Your task to perform on an android device: toggle improve location accuracy Image 0: 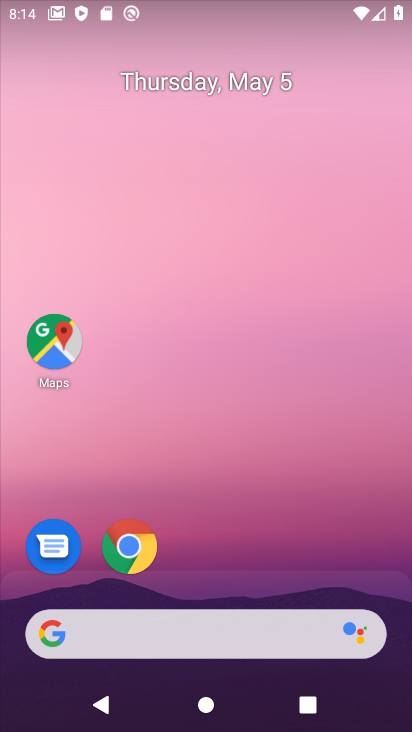
Step 0: drag from (259, 704) to (232, 195)
Your task to perform on an android device: toggle improve location accuracy Image 1: 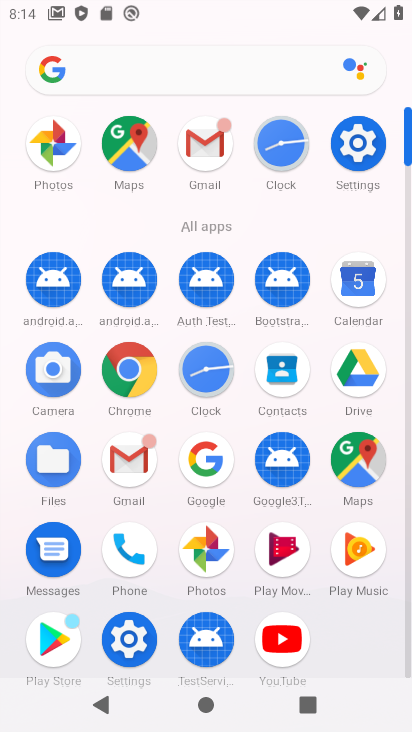
Step 1: click (330, 599)
Your task to perform on an android device: toggle improve location accuracy Image 2: 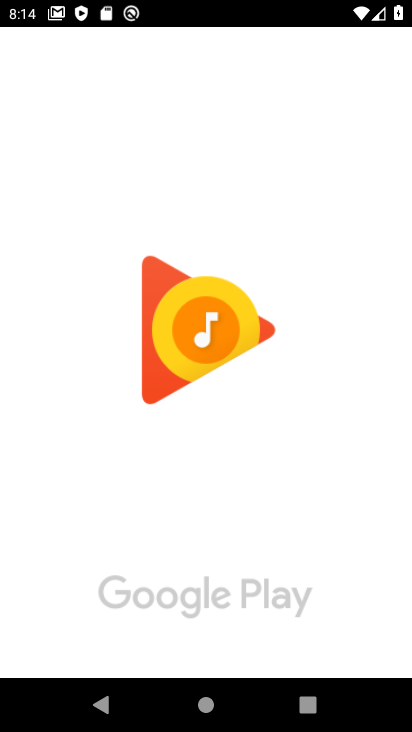
Step 2: press home button
Your task to perform on an android device: toggle improve location accuracy Image 3: 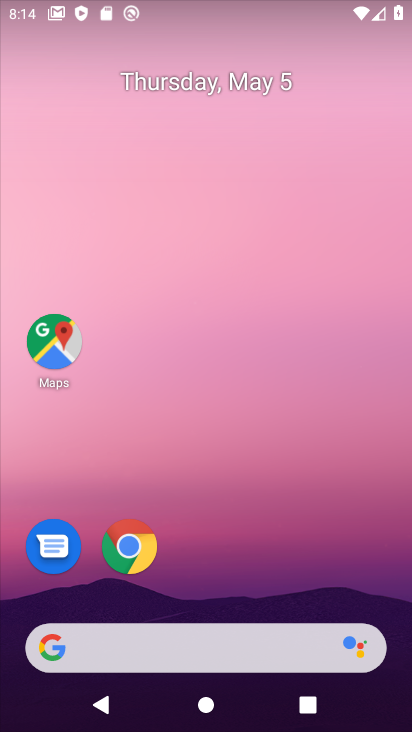
Step 3: drag from (266, 601) to (222, 97)
Your task to perform on an android device: toggle improve location accuracy Image 4: 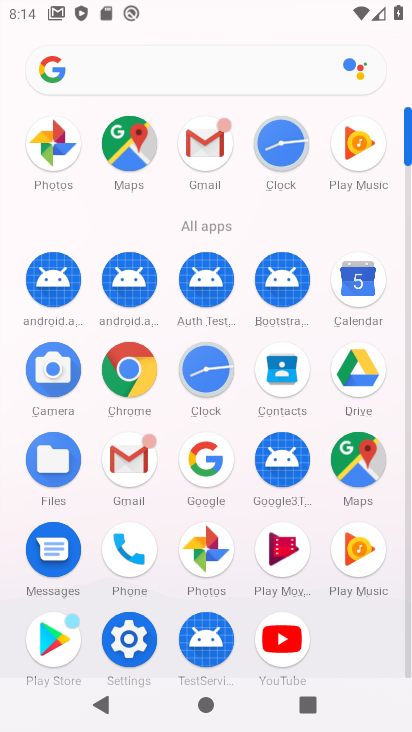
Step 4: click (122, 645)
Your task to perform on an android device: toggle improve location accuracy Image 5: 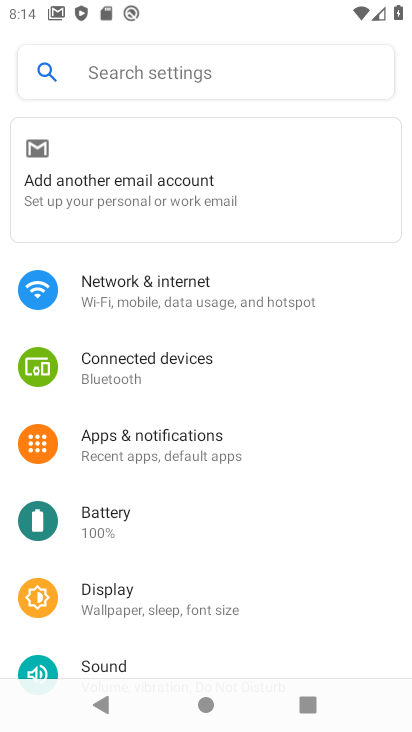
Step 5: drag from (142, 553) to (146, 207)
Your task to perform on an android device: toggle improve location accuracy Image 6: 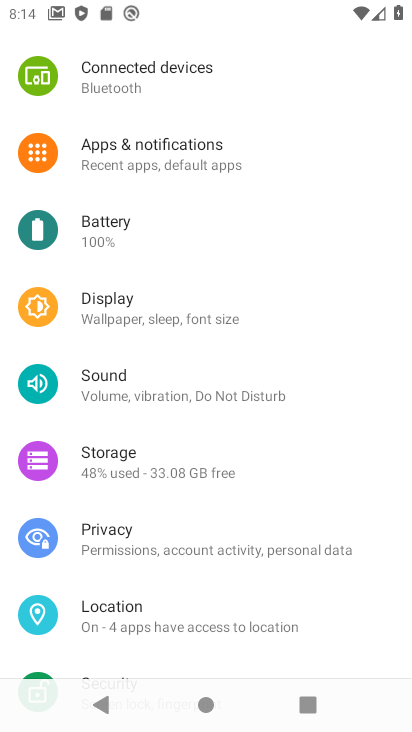
Step 6: drag from (164, 461) to (165, 295)
Your task to perform on an android device: toggle improve location accuracy Image 7: 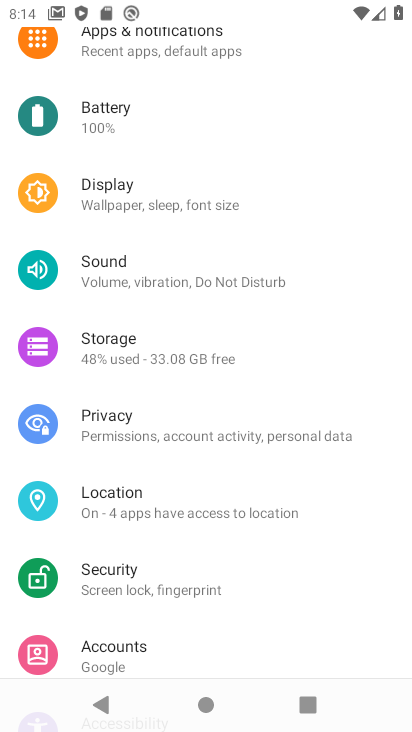
Step 7: click (129, 501)
Your task to perform on an android device: toggle improve location accuracy Image 8: 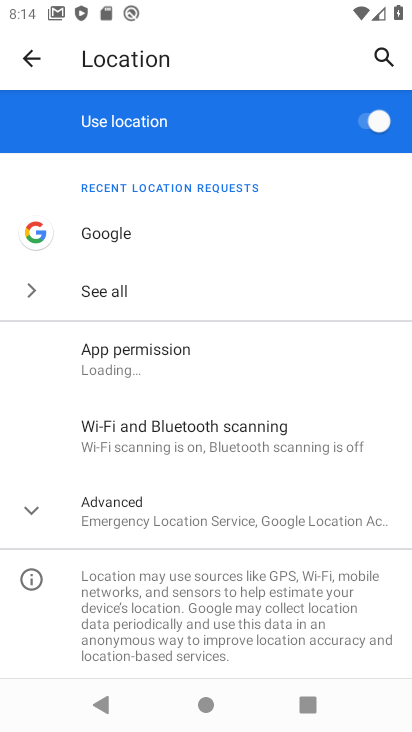
Step 8: click (175, 518)
Your task to perform on an android device: toggle improve location accuracy Image 9: 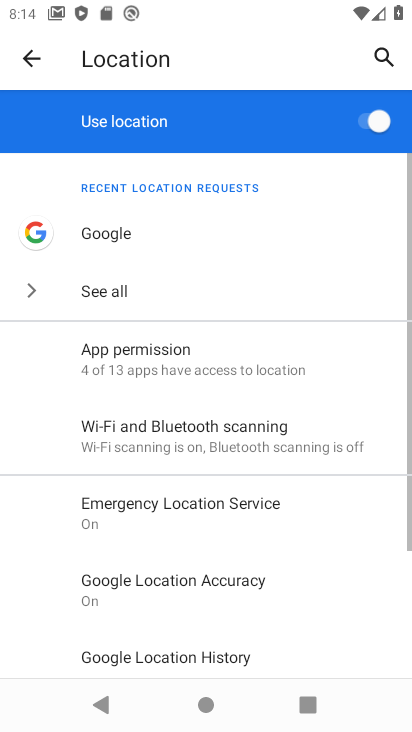
Step 9: click (208, 574)
Your task to perform on an android device: toggle improve location accuracy Image 10: 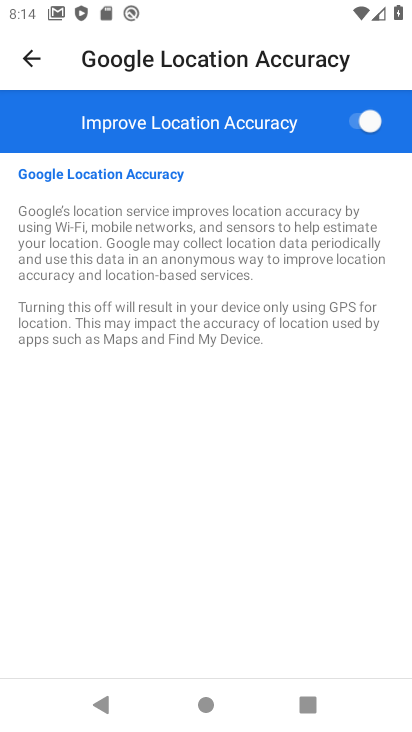
Step 10: click (368, 120)
Your task to perform on an android device: toggle improve location accuracy Image 11: 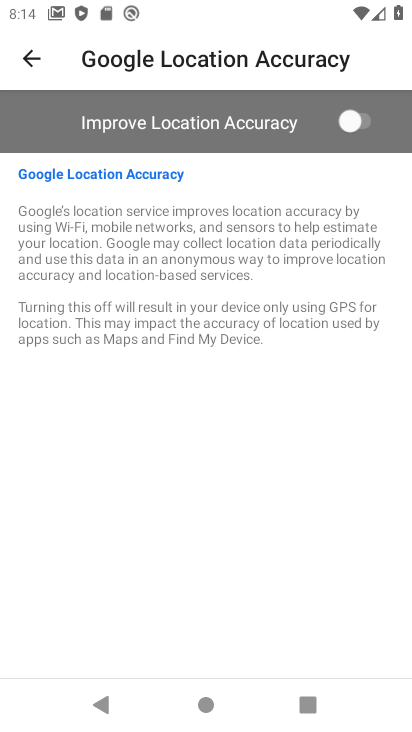
Step 11: task complete